Your task to perform on an android device: Go to Google Image 0: 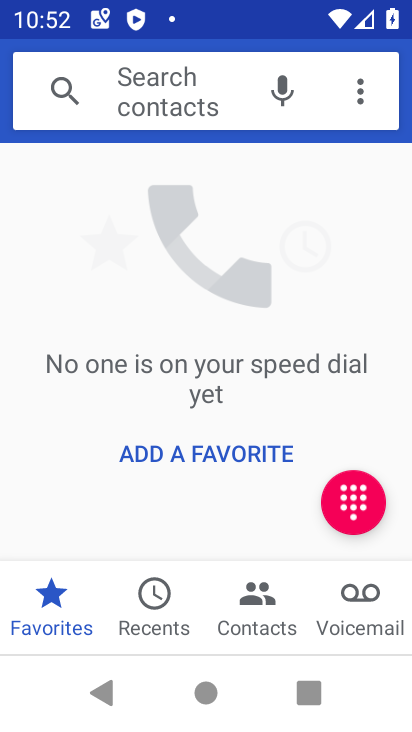
Step 0: press back button
Your task to perform on an android device: Go to Google Image 1: 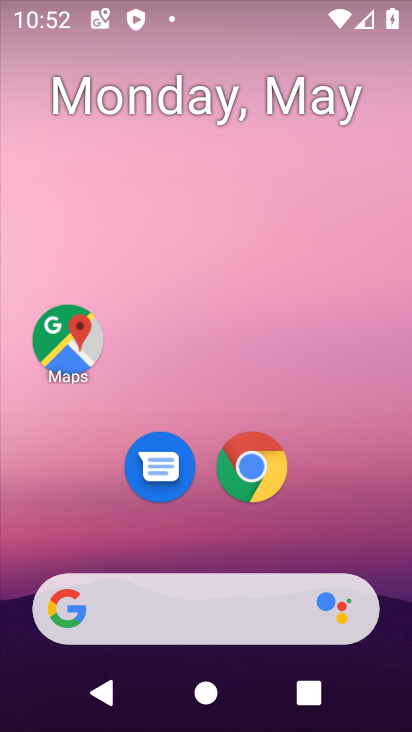
Step 1: drag from (396, 662) to (375, 65)
Your task to perform on an android device: Go to Google Image 2: 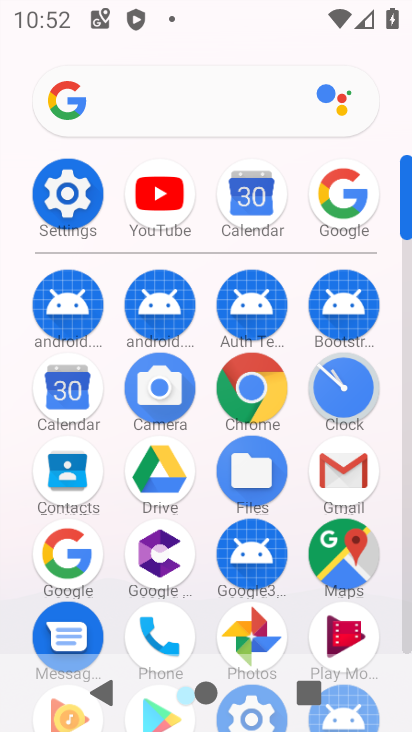
Step 2: drag from (205, 584) to (225, 262)
Your task to perform on an android device: Go to Google Image 3: 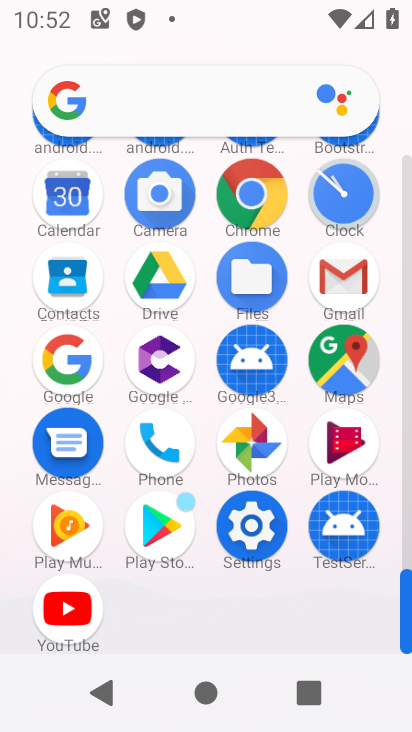
Step 3: click (49, 367)
Your task to perform on an android device: Go to Google Image 4: 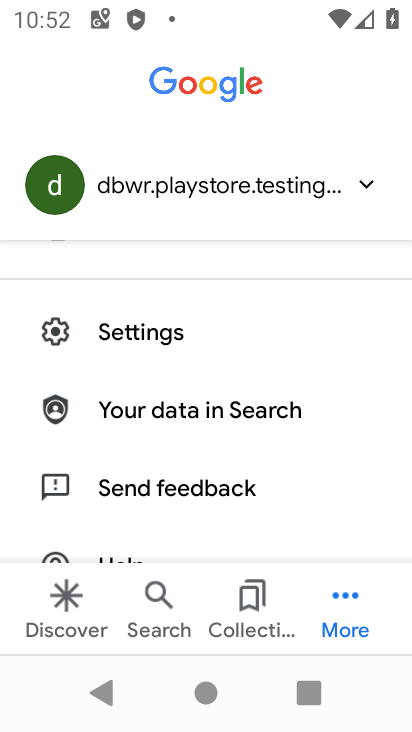
Step 4: task complete